Your task to perform on an android device: Is it going to rain this weekend? Image 0: 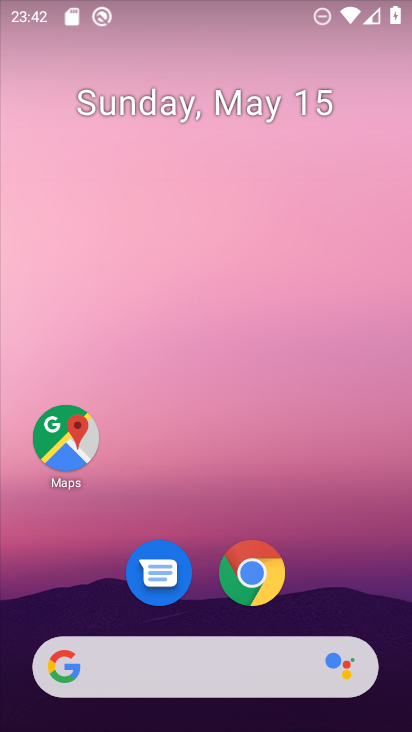
Step 0: click (258, 584)
Your task to perform on an android device: Is it going to rain this weekend? Image 1: 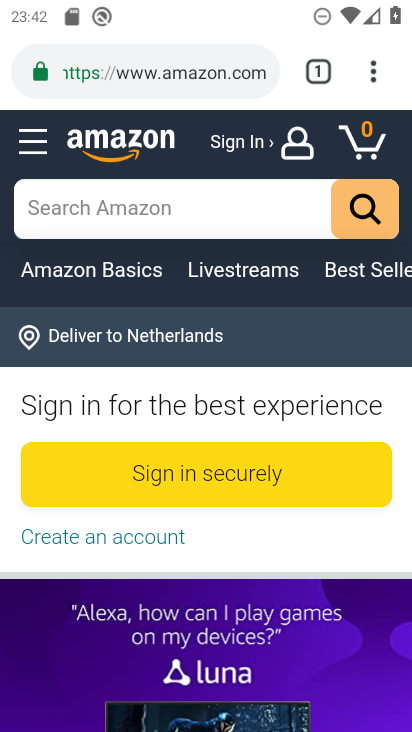
Step 1: click (204, 75)
Your task to perform on an android device: Is it going to rain this weekend? Image 2: 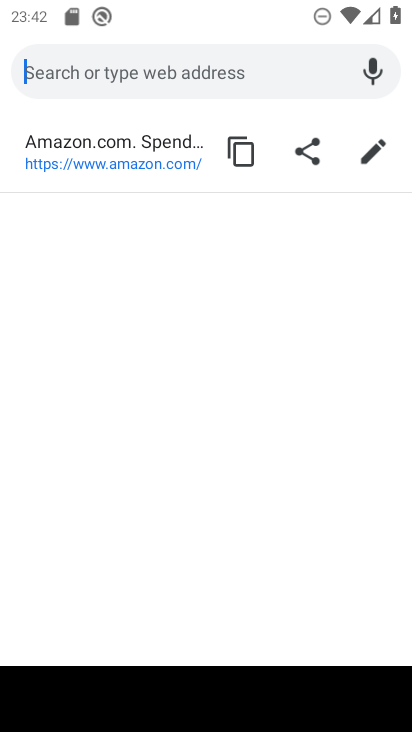
Step 2: type "Is it going to rain this weekend?"
Your task to perform on an android device: Is it going to rain this weekend? Image 3: 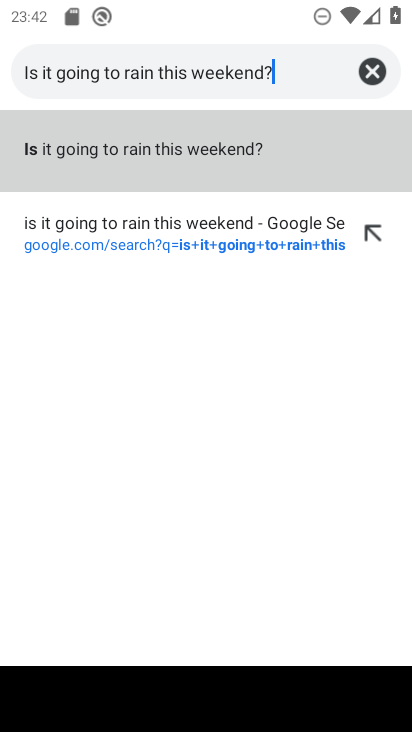
Step 3: click (104, 128)
Your task to perform on an android device: Is it going to rain this weekend? Image 4: 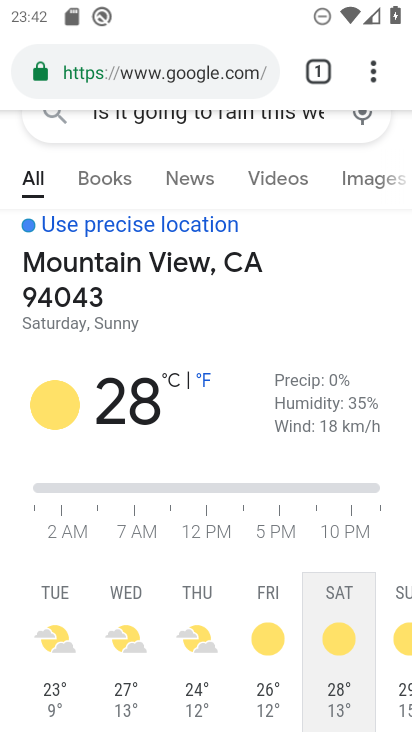
Step 4: task complete